Your task to perform on an android device: set the stopwatch Image 0: 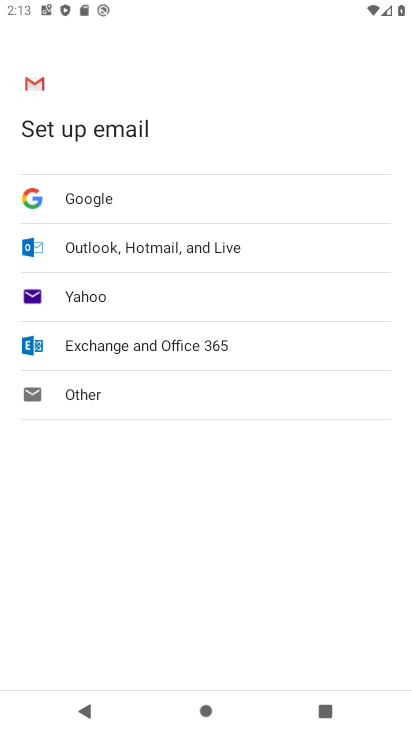
Step 0: press home button
Your task to perform on an android device: set the stopwatch Image 1: 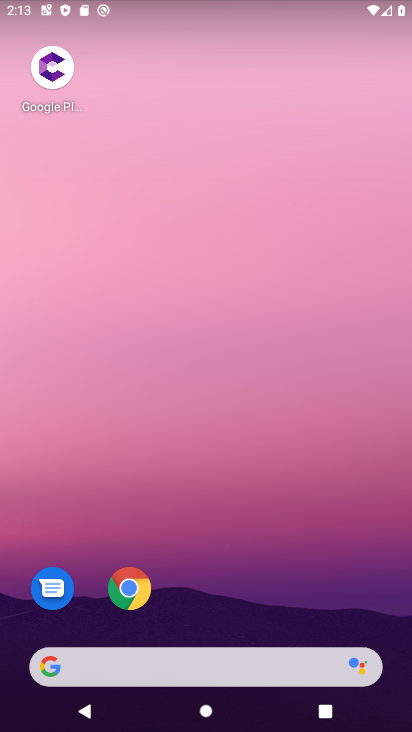
Step 1: drag from (222, 678) to (242, 171)
Your task to perform on an android device: set the stopwatch Image 2: 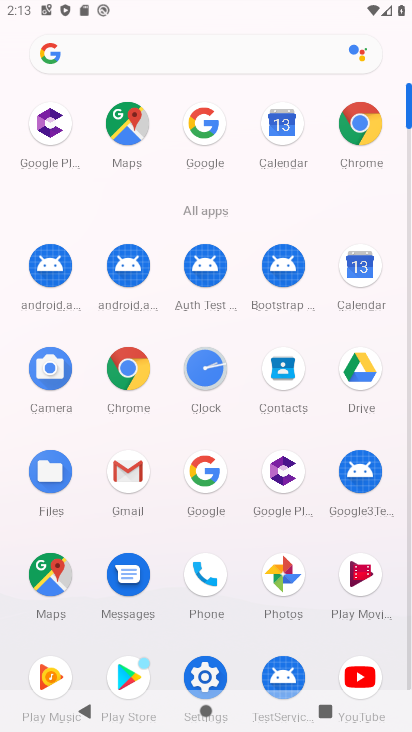
Step 2: click (204, 378)
Your task to perform on an android device: set the stopwatch Image 3: 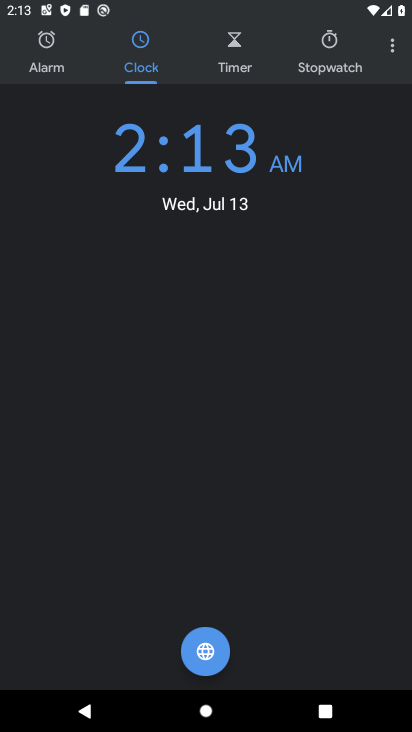
Step 3: click (315, 65)
Your task to perform on an android device: set the stopwatch Image 4: 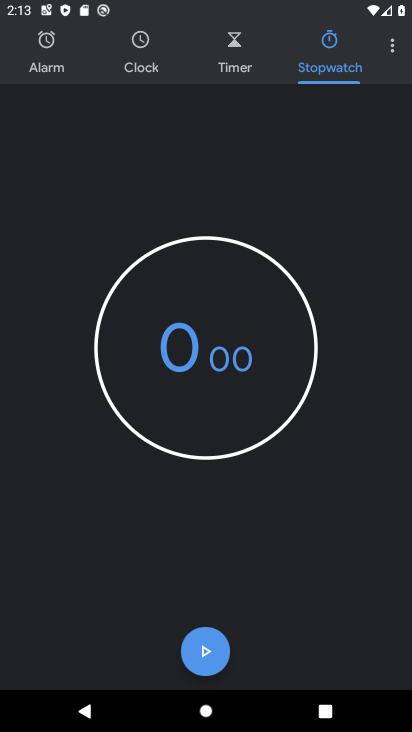
Step 4: click (214, 396)
Your task to perform on an android device: set the stopwatch Image 5: 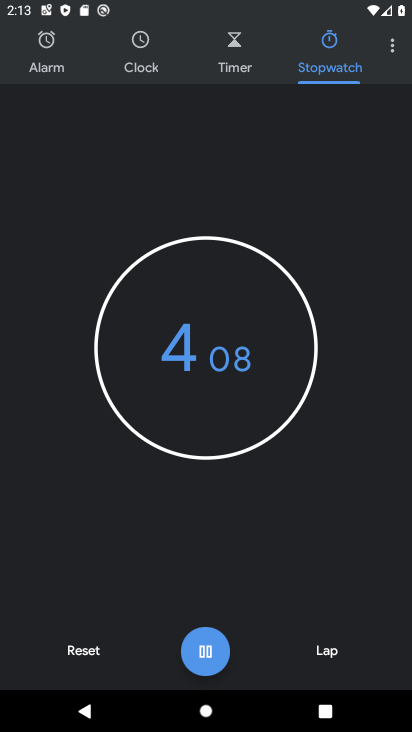
Step 5: task complete